Your task to perform on an android device: read, delete, or share a saved page in the chrome app Image 0: 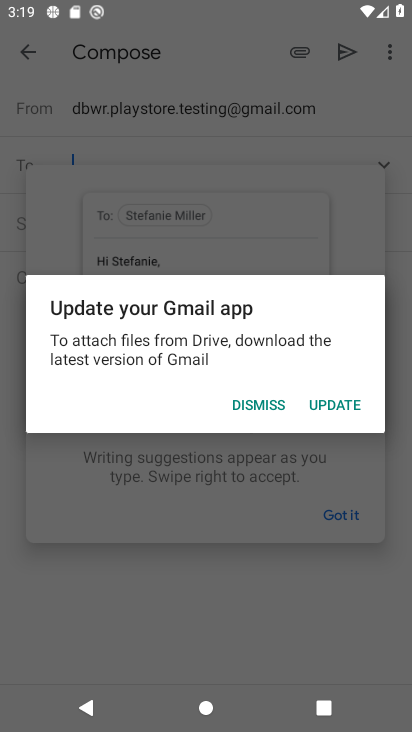
Step 0: press home button
Your task to perform on an android device: read, delete, or share a saved page in the chrome app Image 1: 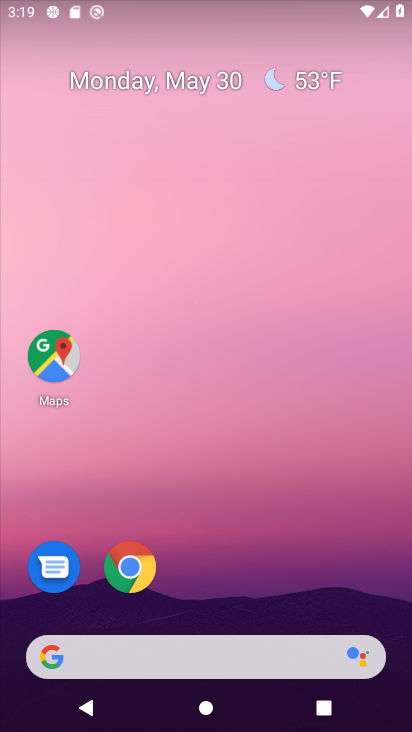
Step 1: drag from (376, 631) to (403, 310)
Your task to perform on an android device: read, delete, or share a saved page in the chrome app Image 2: 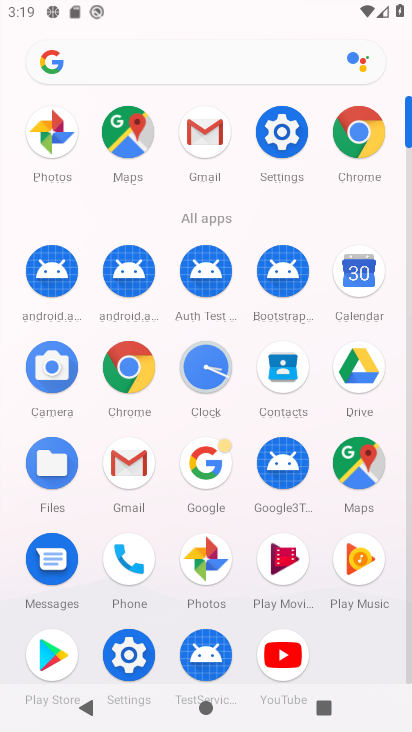
Step 2: click (120, 366)
Your task to perform on an android device: read, delete, or share a saved page in the chrome app Image 3: 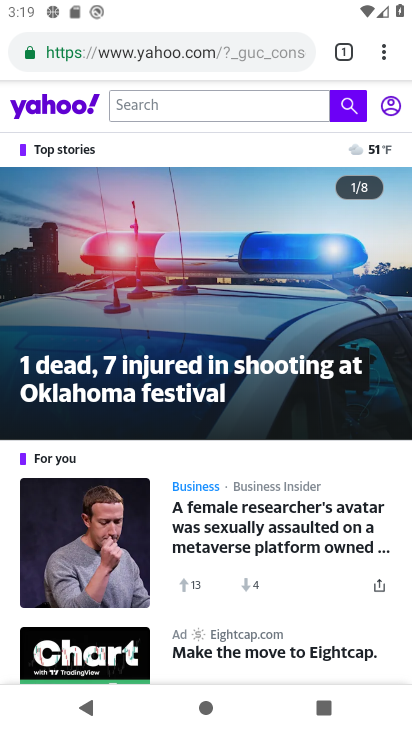
Step 3: click (387, 49)
Your task to perform on an android device: read, delete, or share a saved page in the chrome app Image 4: 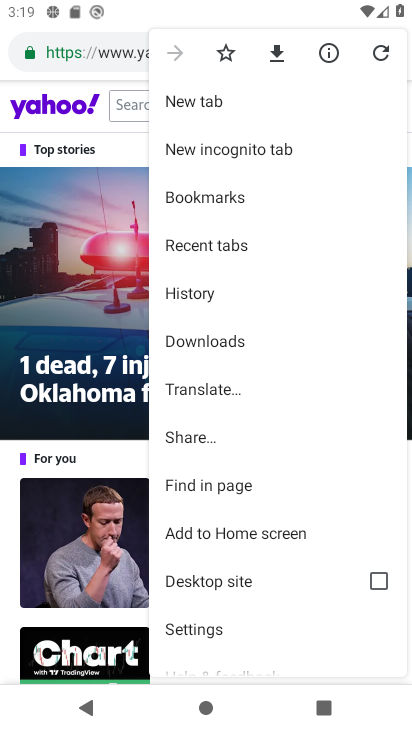
Step 4: click (251, 346)
Your task to perform on an android device: read, delete, or share a saved page in the chrome app Image 5: 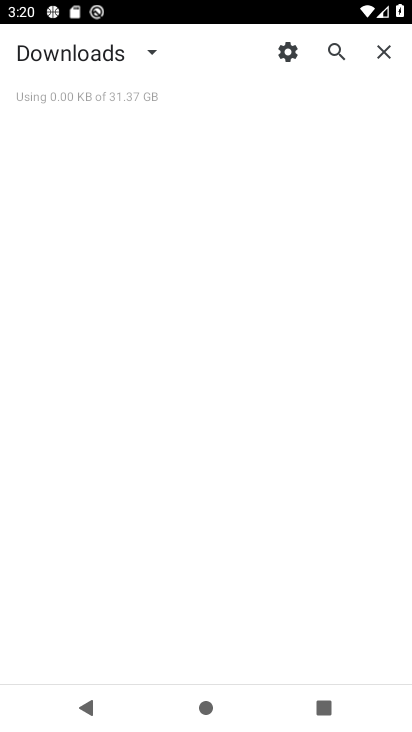
Step 5: task complete